Your task to perform on an android device: What's on my calendar tomorrow? Image 0: 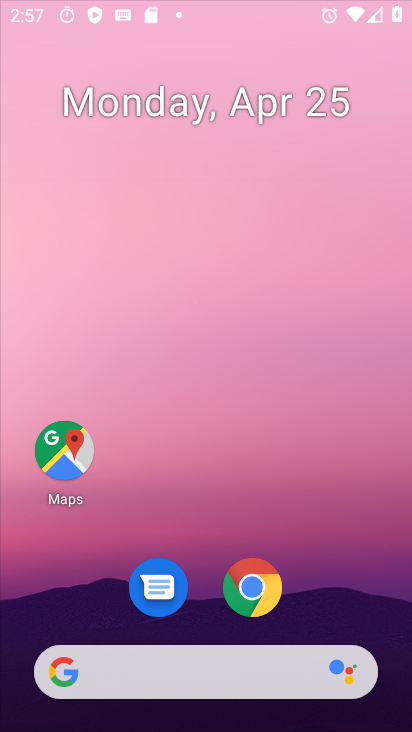
Step 0: click (299, 119)
Your task to perform on an android device: What's on my calendar tomorrow? Image 1: 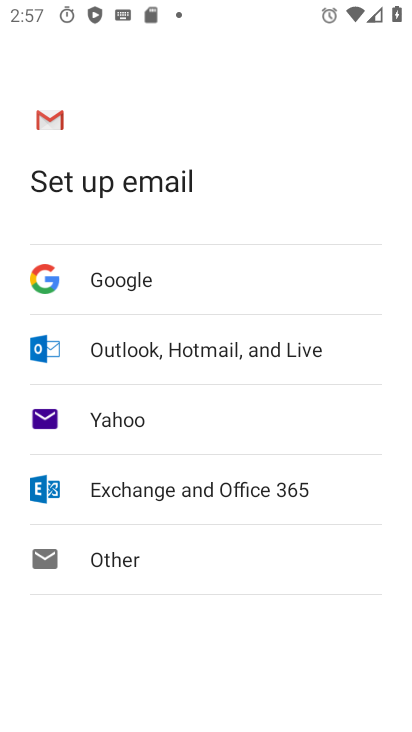
Step 1: press home button
Your task to perform on an android device: What's on my calendar tomorrow? Image 2: 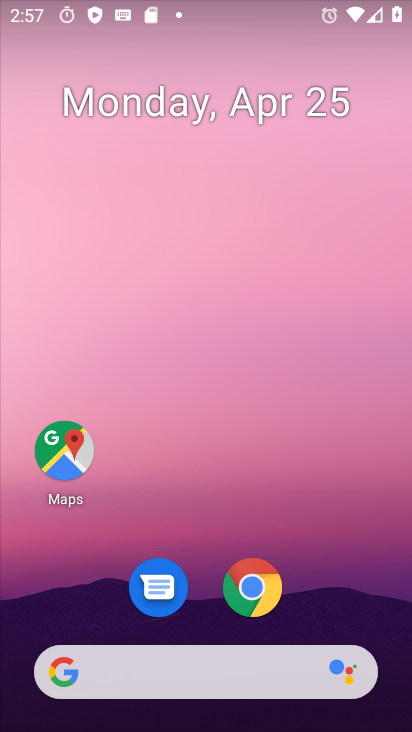
Step 2: drag from (317, 515) to (272, 108)
Your task to perform on an android device: What's on my calendar tomorrow? Image 3: 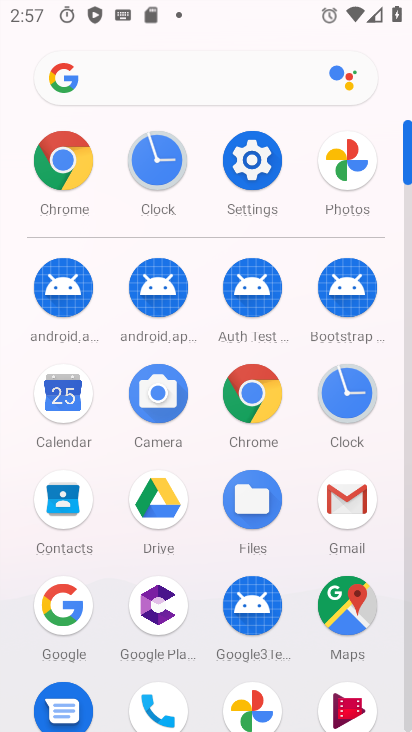
Step 3: click (68, 418)
Your task to perform on an android device: What's on my calendar tomorrow? Image 4: 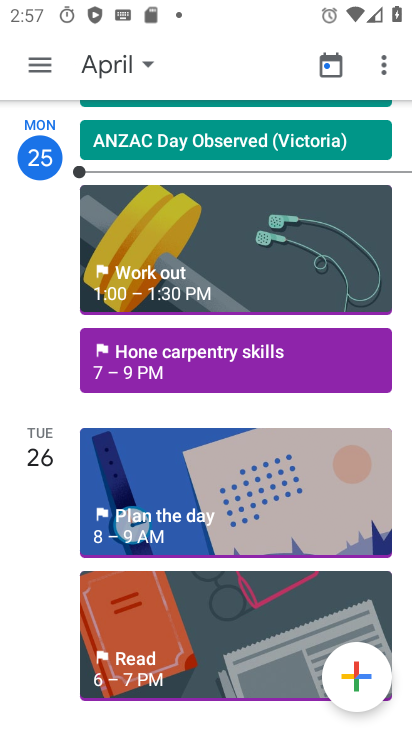
Step 4: task complete